Your task to perform on an android device: Go to privacy settings Image 0: 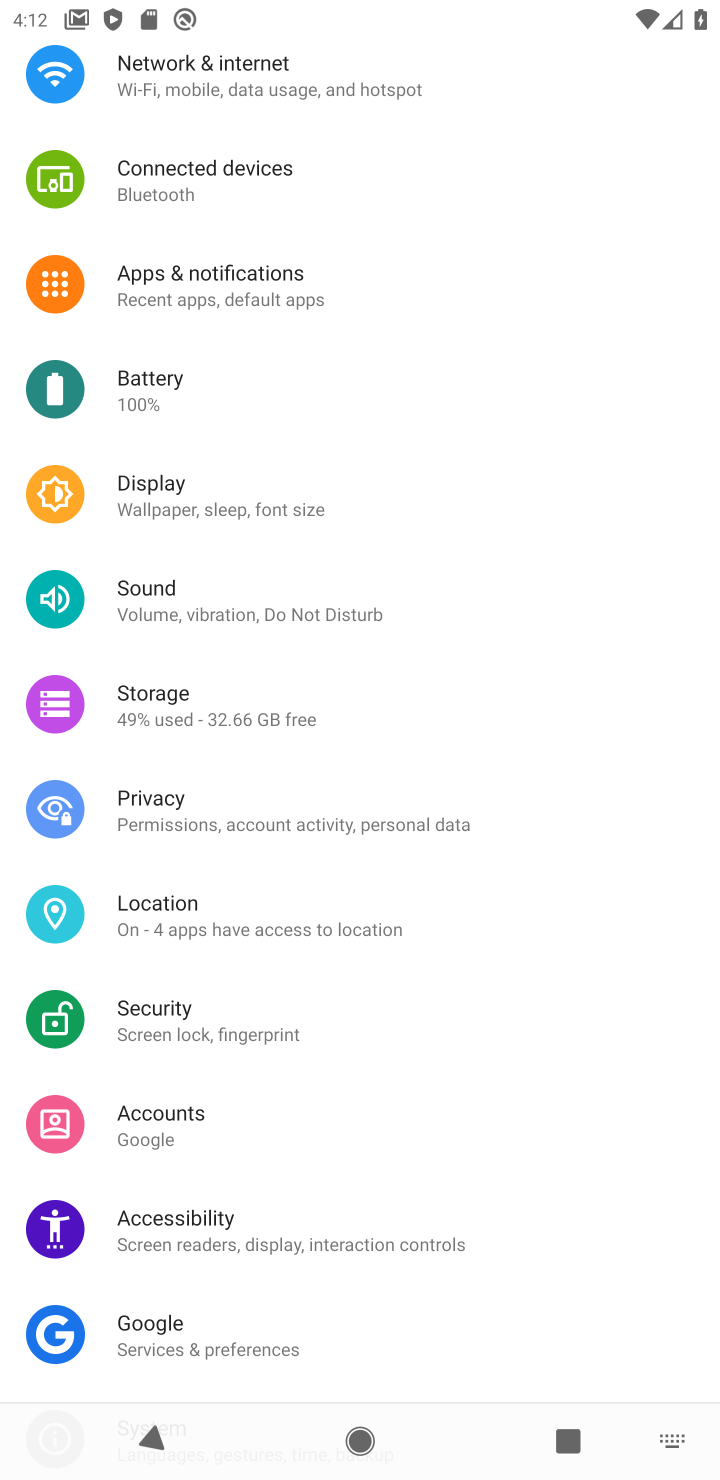
Step 0: click (378, 822)
Your task to perform on an android device: Go to privacy settings Image 1: 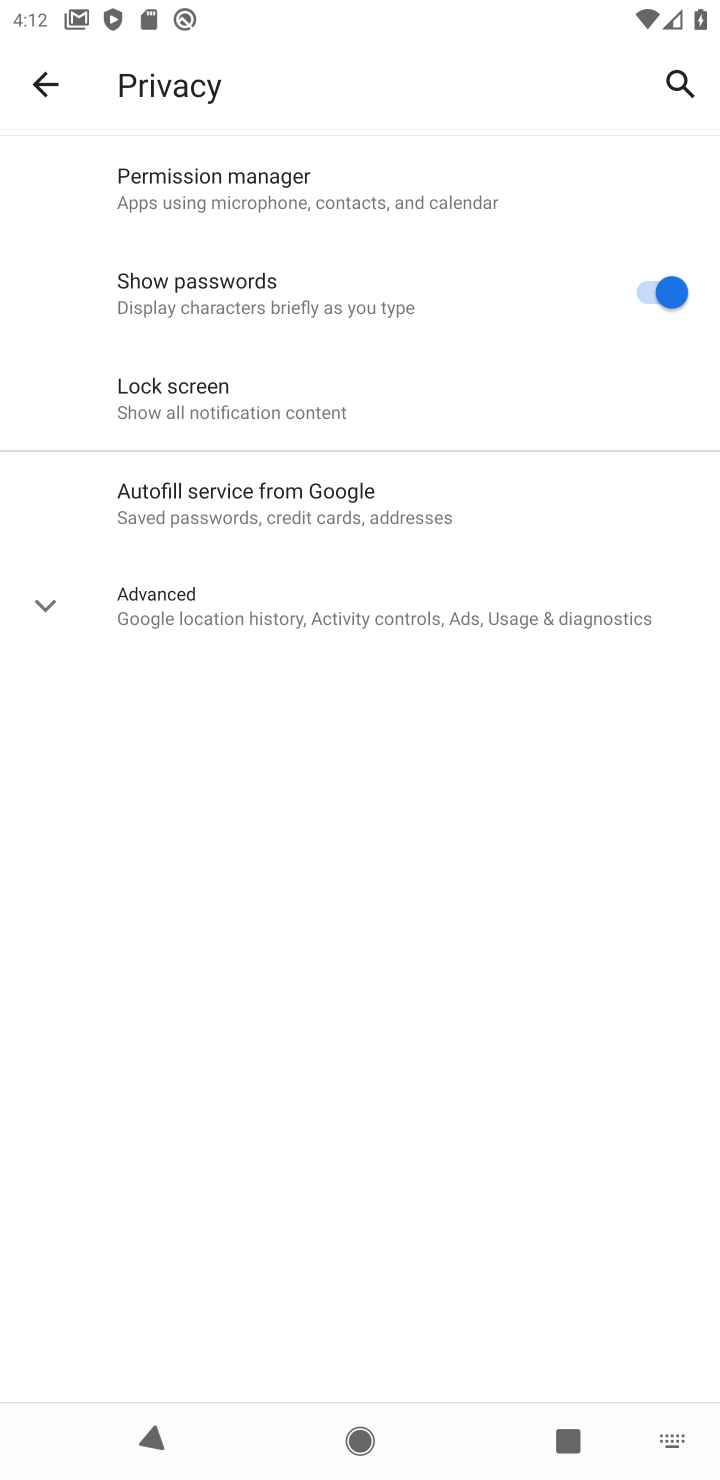
Step 1: task complete